Your task to perform on an android device: open a bookmark in the chrome app Image 0: 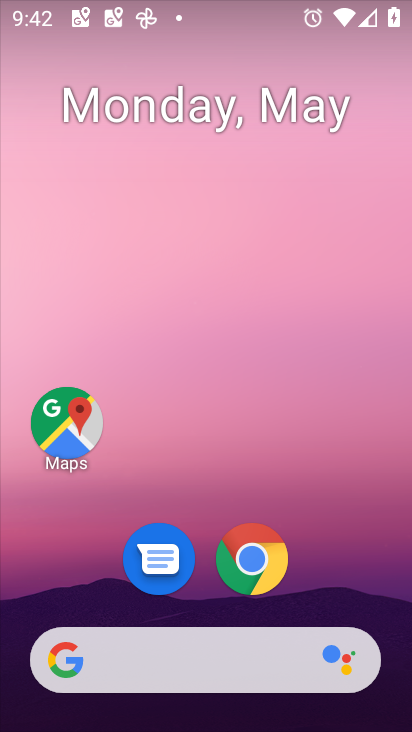
Step 0: drag from (400, 634) to (281, 106)
Your task to perform on an android device: open a bookmark in the chrome app Image 1: 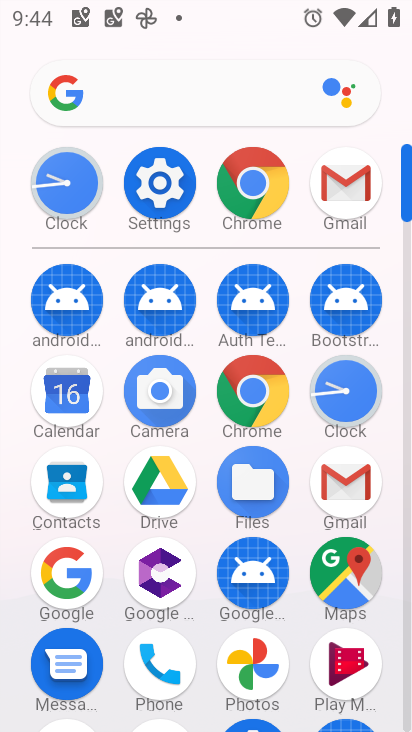
Step 1: click (278, 175)
Your task to perform on an android device: open a bookmark in the chrome app Image 2: 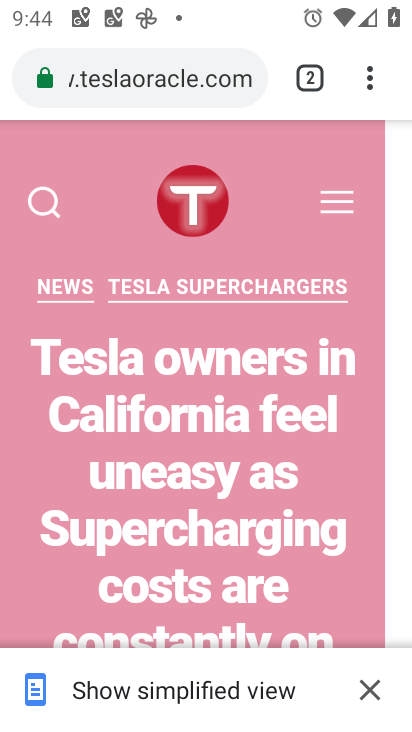
Step 2: press back button
Your task to perform on an android device: open a bookmark in the chrome app Image 3: 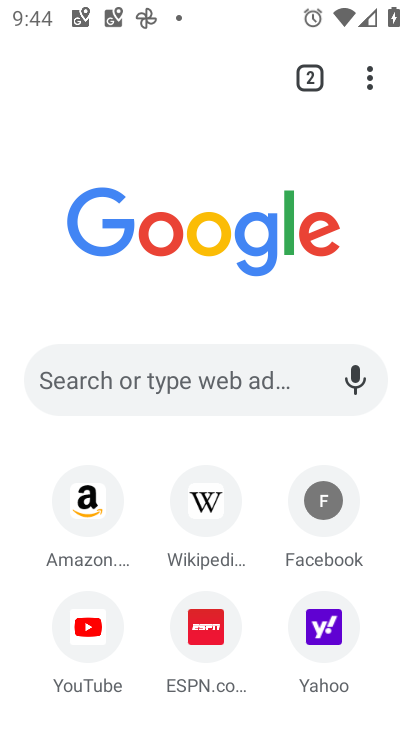
Step 3: click (370, 72)
Your task to perform on an android device: open a bookmark in the chrome app Image 4: 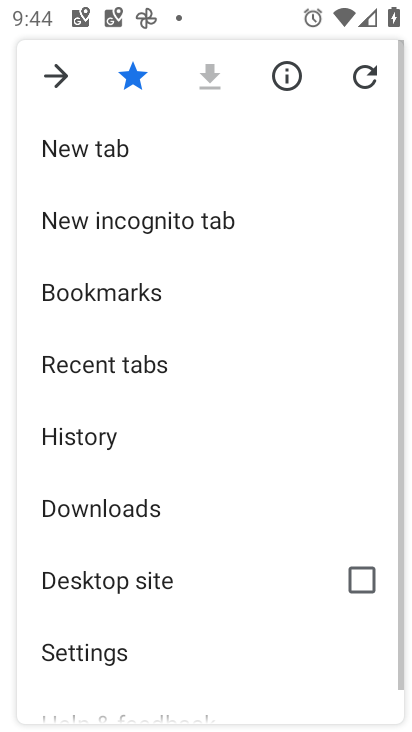
Step 4: click (151, 306)
Your task to perform on an android device: open a bookmark in the chrome app Image 5: 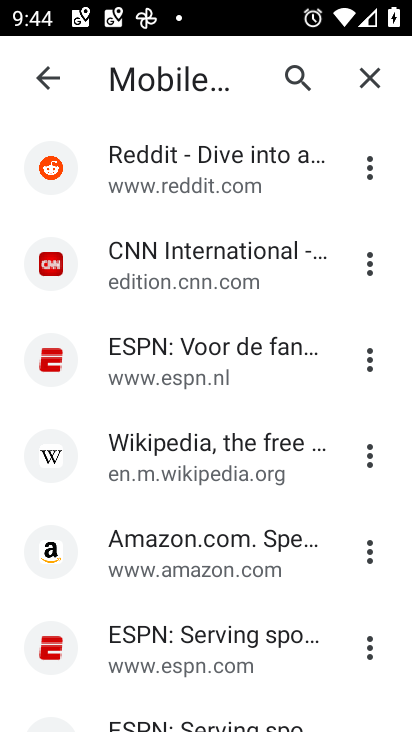
Step 5: task complete